Your task to perform on an android device: When is my next appointment? Image 0: 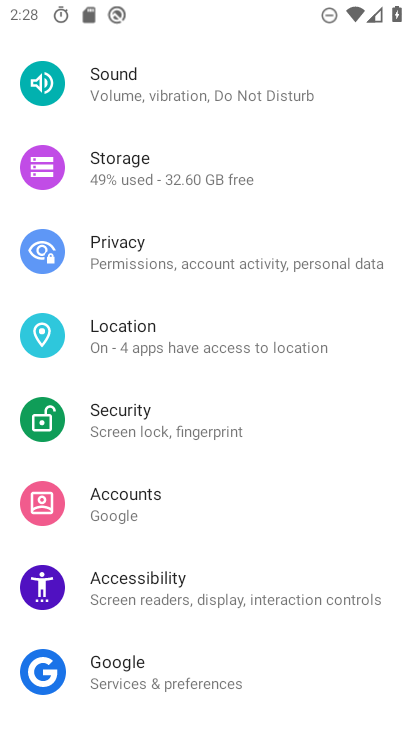
Step 0: press home button
Your task to perform on an android device: When is my next appointment? Image 1: 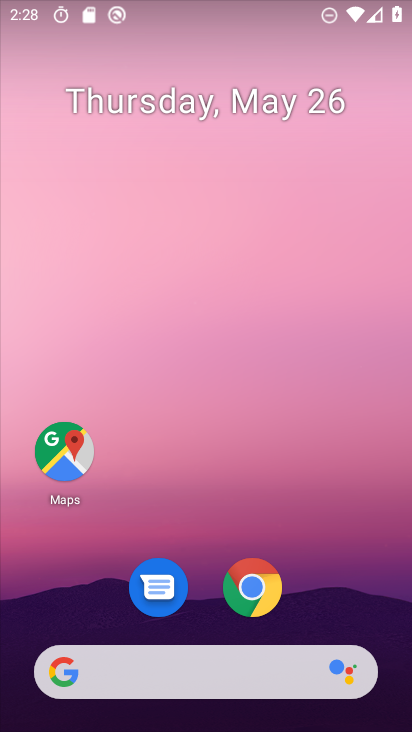
Step 1: drag from (338, 505) to (351, 170)
Your task to perform on an android device: When is my next appointment? Image 2: 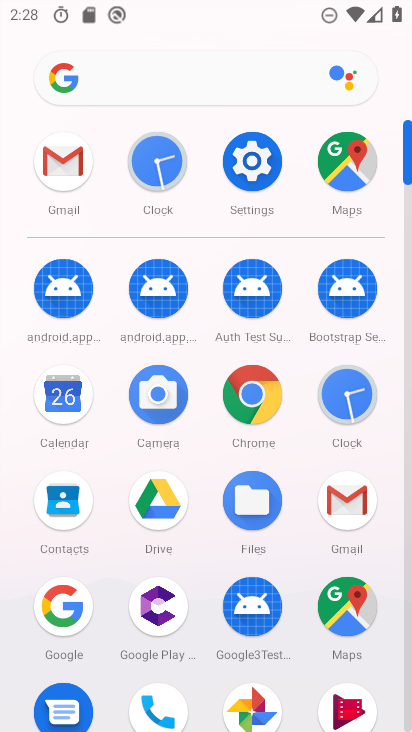
Step 2: click (67, 389)
Your task to perform on an android device: When is my next appointment? Image 3: 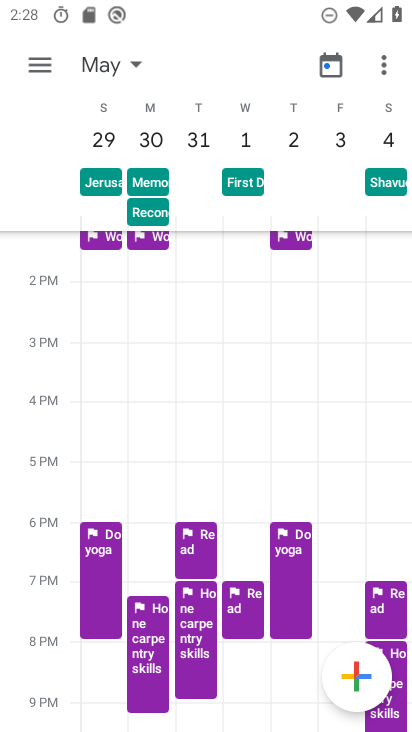
Step 3: click (84, 53)
Your task to perform on an android device: When is my next appointment? Image 4: 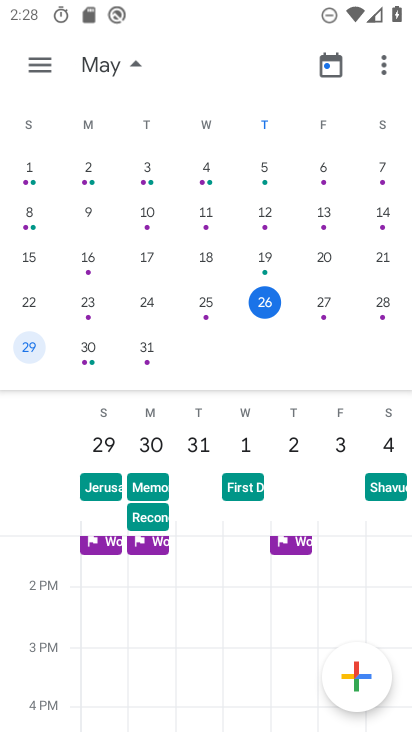
Step 4: click (263, 300)
Your task to perform on an android device: When is my next appointment? Image 5: 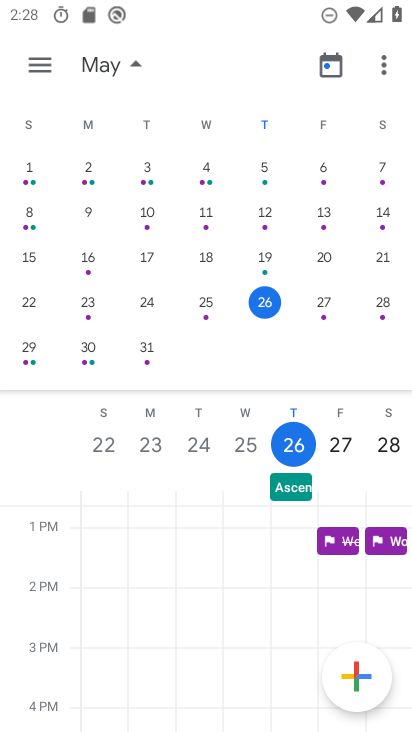
Step 5: task complete